Your task to perform on an android device: turn vacation reply on in the gmail app Image 0: 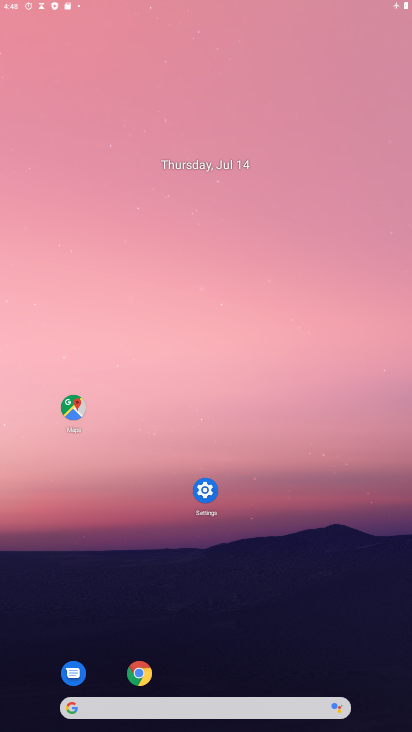
Step 0: drag from (242, 657) to (198, 142)
Your task to perform on an android device: turn vacation reply on in the gmail app Image 1: 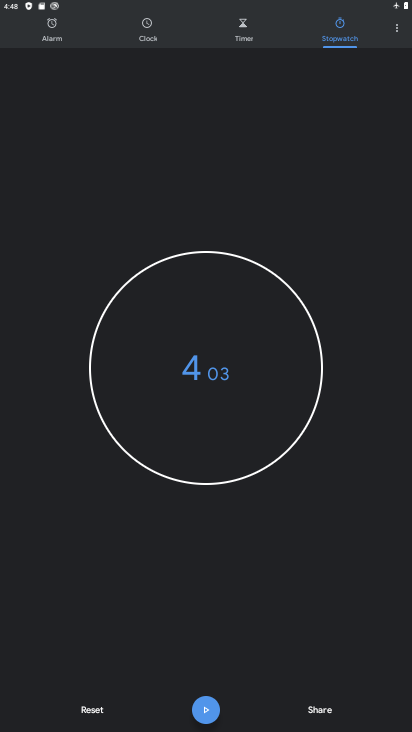
Step 1: press back button
Your task to perform on an android device: turn vacation reply on in the gmail app Image 2: 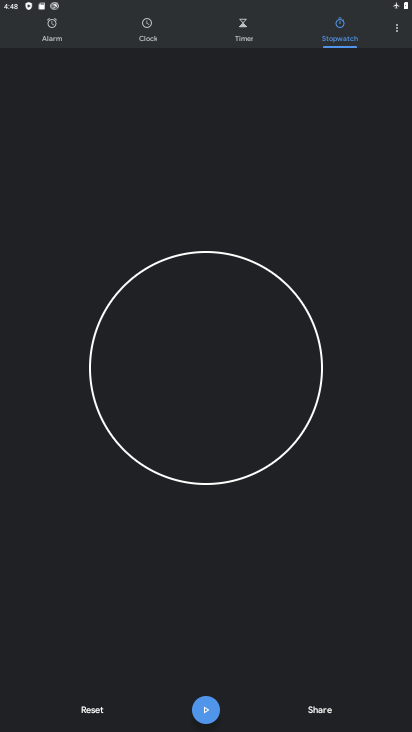
Step 2: press back button
Your task to perform on an android device: turn vacation reply on in the gmail app Image 3: 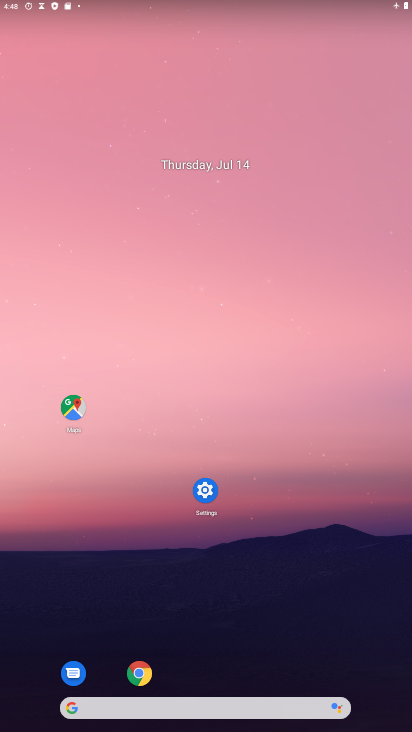
Step 3: drag from (236, 647) to (177, 147)
Your task to perform on an android device: turn vacation reply on in the gmail app Image 4: 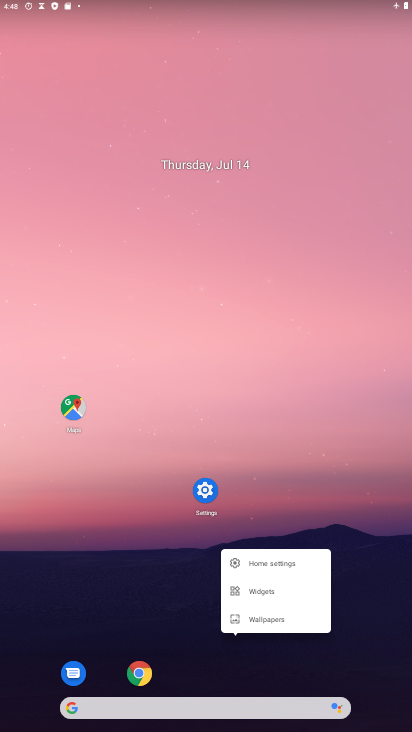
Step 4: drag from (162, 666) to (32, 15)
Your task to perform on an android device: turn vacation reply on in the gmail app Image 5: 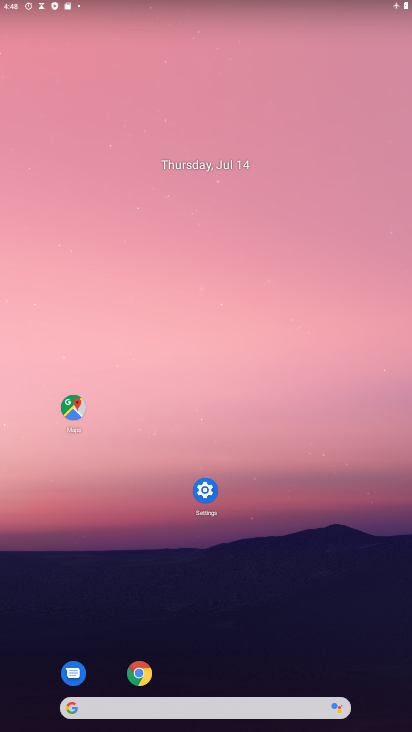
Step 5: drag from (190, 525) to (161, 79)
Your task to perform on an android device: turn vacation reply on in the gmail app Image 6: 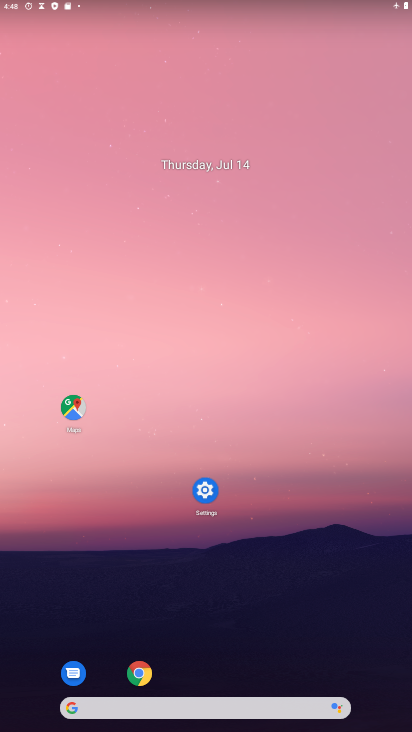
Step 6: drag from (252, 537) to (157, 126)
Your task to perform on an android device: turn vacation reply on in the gmail app Image 7: 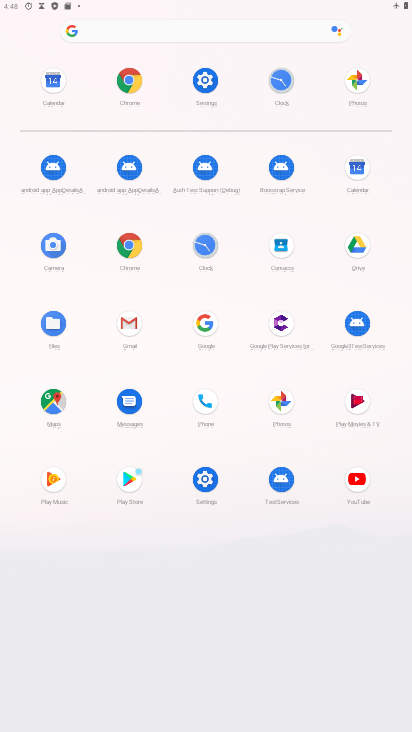
Step 7: drag from (252, 538) to (186, 232)
Your task to perform on an android device: turn vacation reply on in the gmail app Image 8: 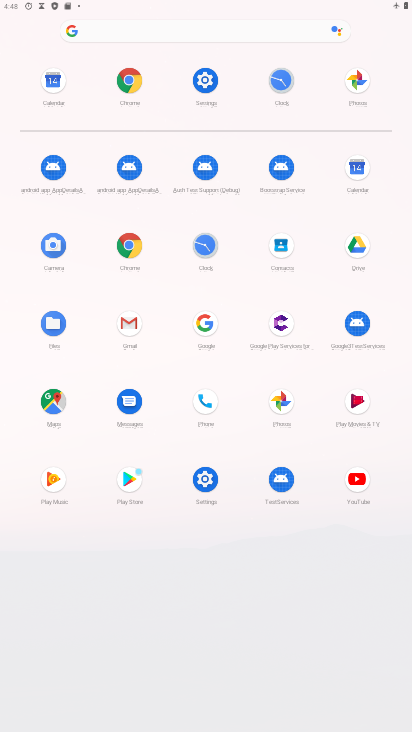
Step 8: click (126, 313)
Your task to perform on an android device: turn vacation reply on in the gmail app Image 9: 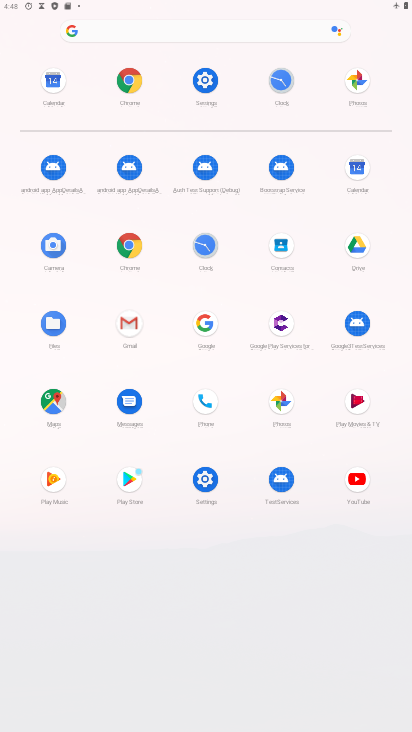
Step 9: click (131, 324)
Your task to perform on an android device: turn vacation reply on in the gmail app Image 10: 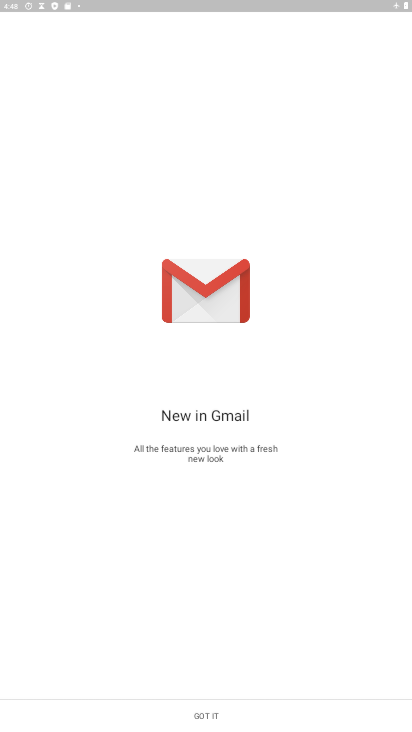
Step 10: click (134, 327)
Your task to perform on an android device: turn vacation reply on in the gmail app Image 11: 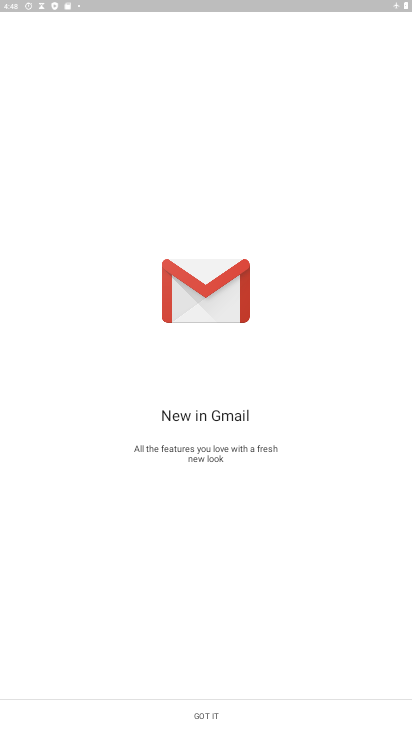
Step 11: click (200, 727)
Your task to perform on an android device: turn vacation reply on in the gmail app Image 12: 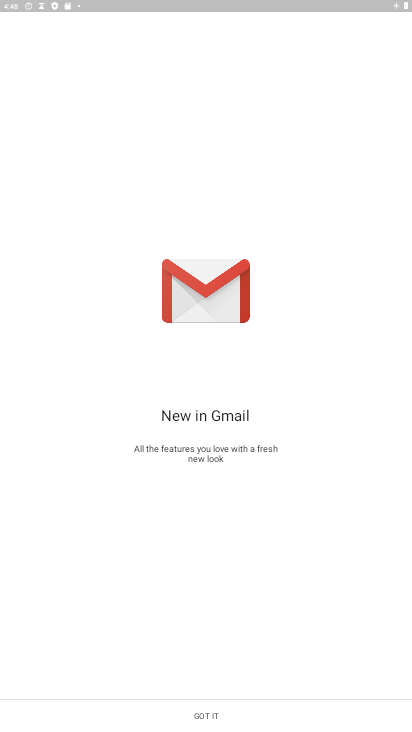
Step 12: click (209, 713)
Your task to perform on an android device: turn vacation reply on in the gmail app Image 13: 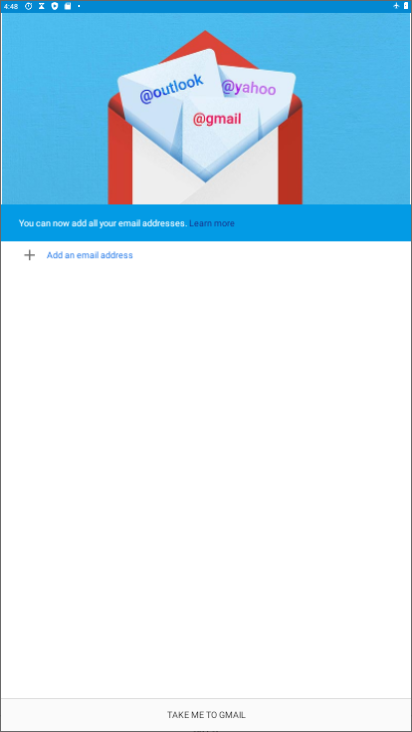
Step 13: click (209, 713)
Your task to perform on an android device: turn vacation reply on in the gmail app Image 14: 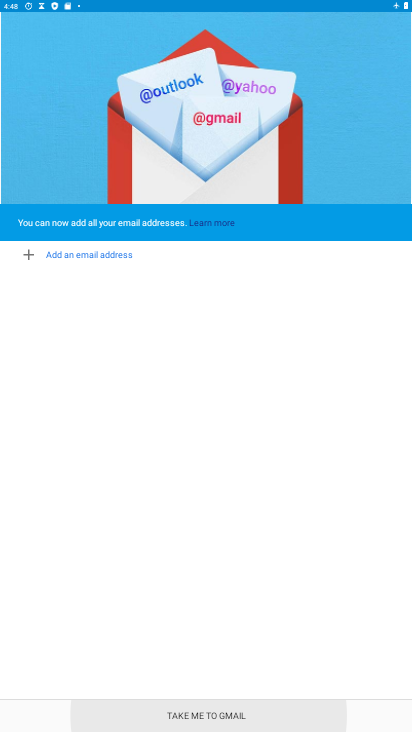
Step 14: click (211, 714)
Your task to perform on an android device: turn vacation reply on in the gmail app Image 15: 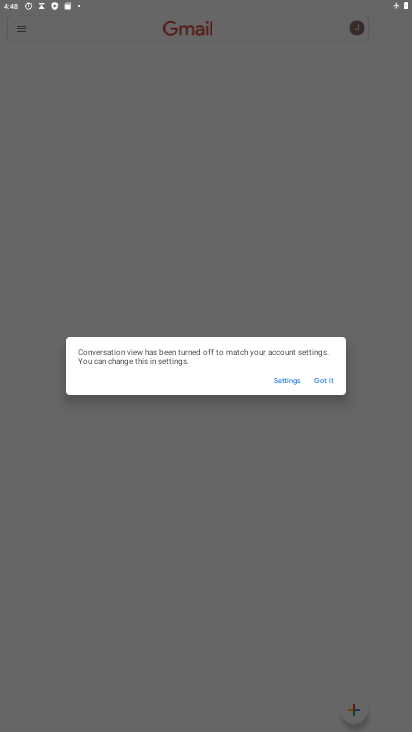
Step 15: click (326, 379)
Your task to perform on an android device: turn vacation reply on in the gmail app Image 16: 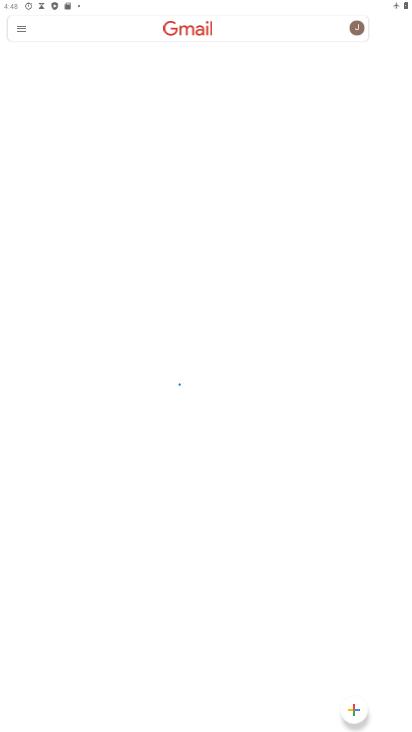
Step 16: drag from (24, 26) to (70, 253)
Your task to perform on an android device: turn vacation reply on in the gmail app Image 17: 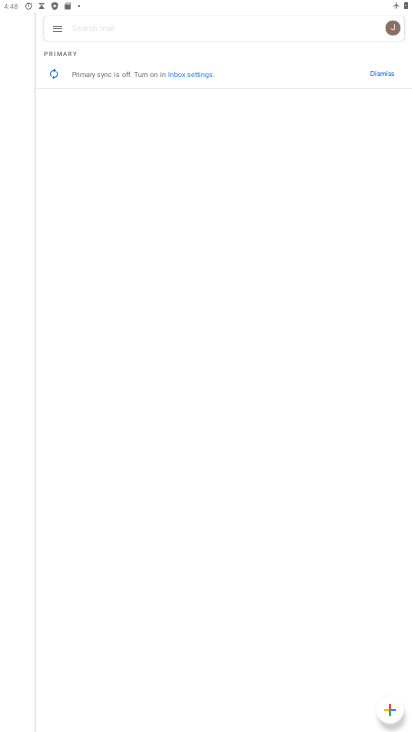
Step 17: click (60, 28)
Your task to perform on an android device: turn vacation reply on in the gmail app Image 18: 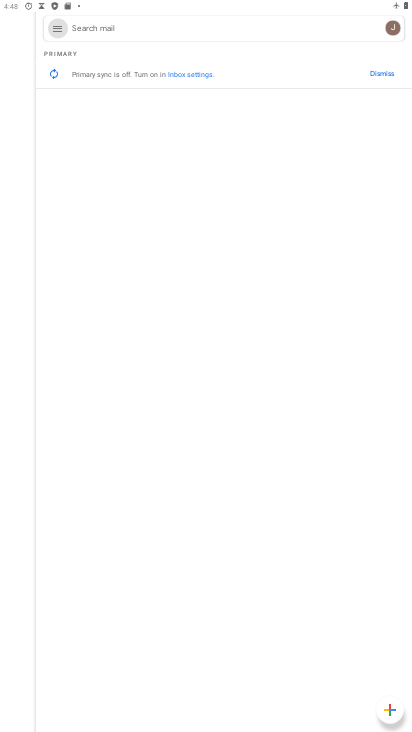
Step 18: click (60, 28)
Your task to perform on an android device: turn vacation reply on in the gmail app Image 19: 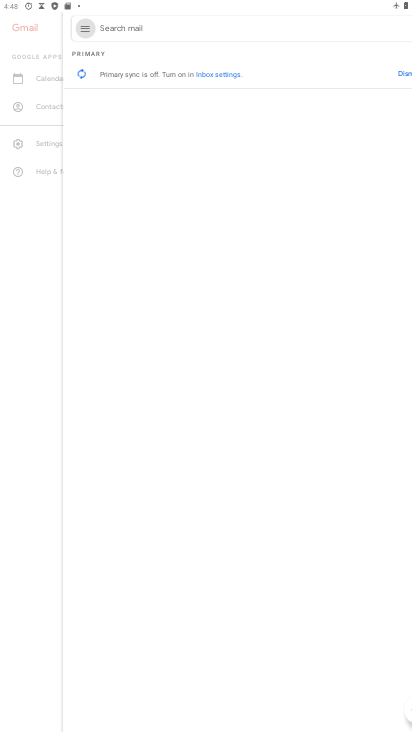
Step 19: click (62, 37)
Your task to perform on an android device: turn vacation reply on in the gmail app Image 20: 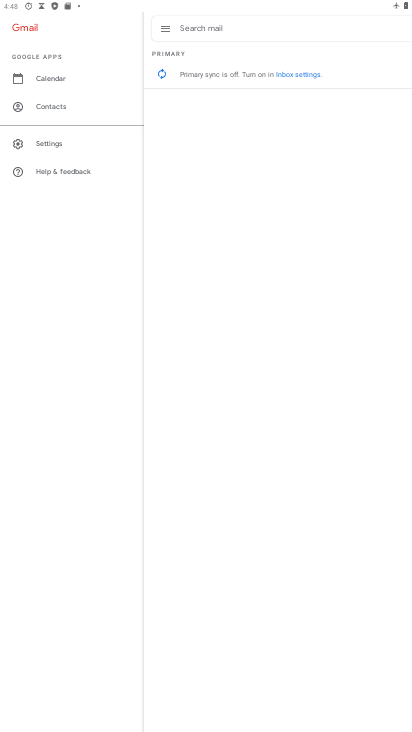
Step 20: click (161, 26)
Your task to perform on an android device: turn vacation reply on in the gmail app Image 21: 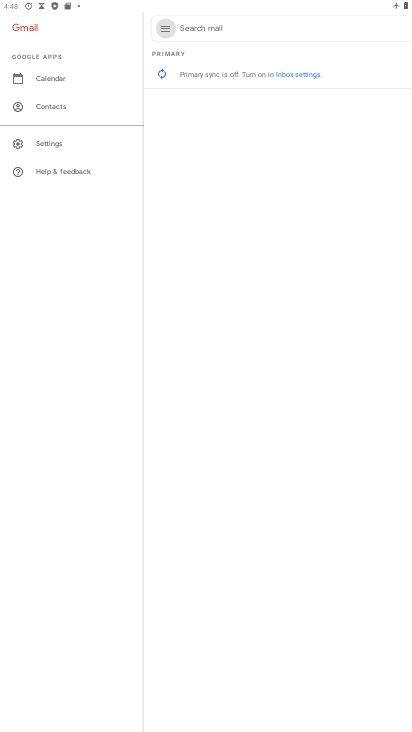
Step 21: click (167, 29)
Your task to perform on an android device: turn vacation reply on in the gmail app Image 22: 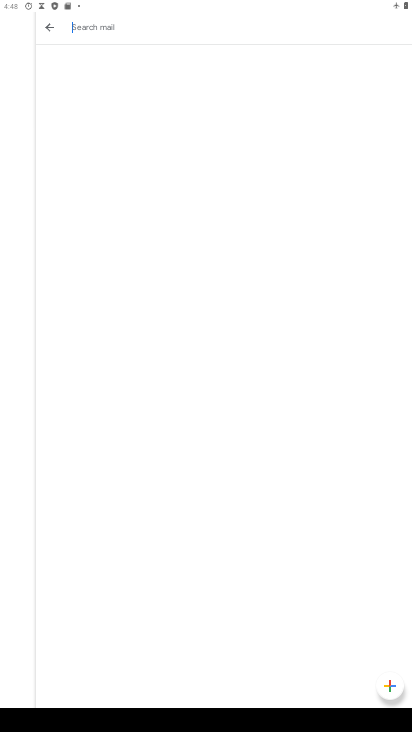
Step 22: click (57, 22)
Your task to perform on an android device: turn vacation reply on in the gmail app Image 23: 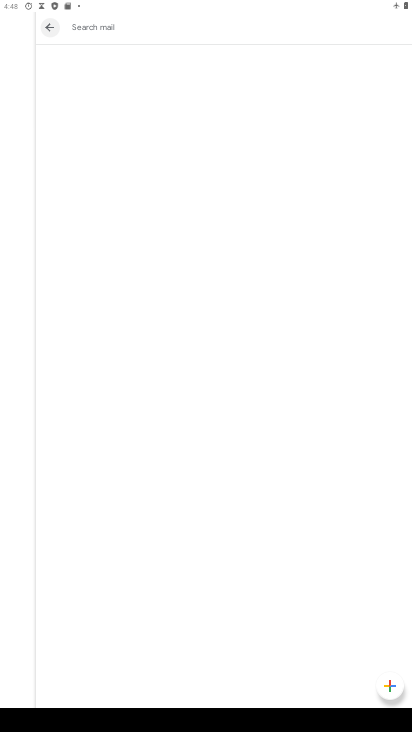
Step 23: click (52, 24)
Your task to perform on an android device: turn vacation reply on in the gmail app Image 24: 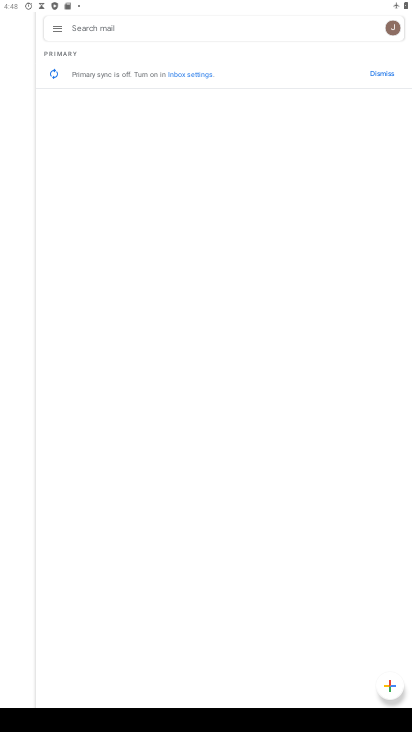
Step 24: click (49, 24)
Your task to perform on an android device: turn vacation reply on in the gmail app Image 25: 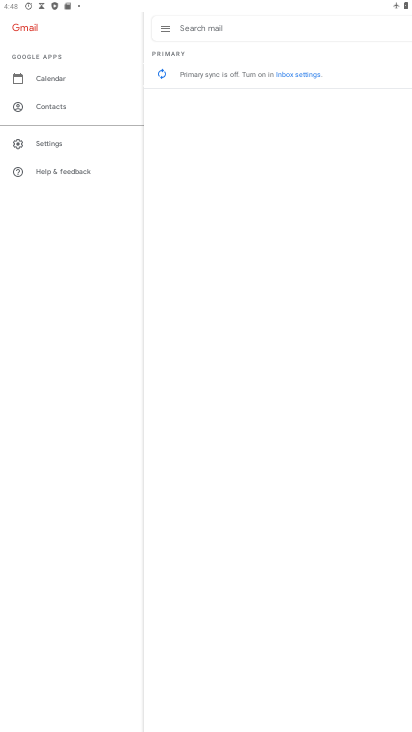
Step 25: click (49, 143)
Your task to perform on an android device: turn vacation reply on in the gmail app Image 26: 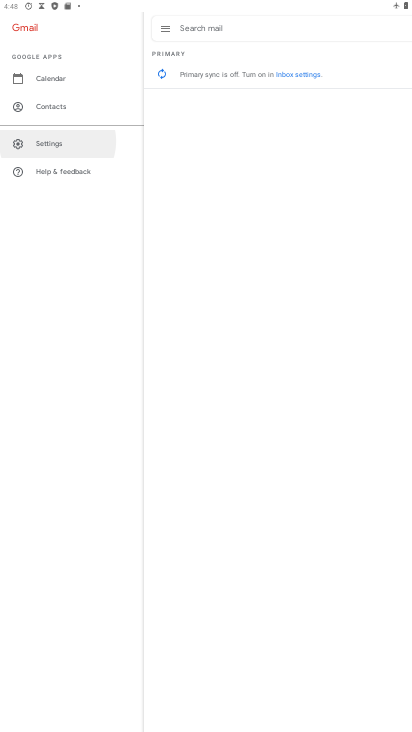
Step 26: click (50, 144)
Your task to perform on an android device: turn vacation reply on in the gmail app Image 27: 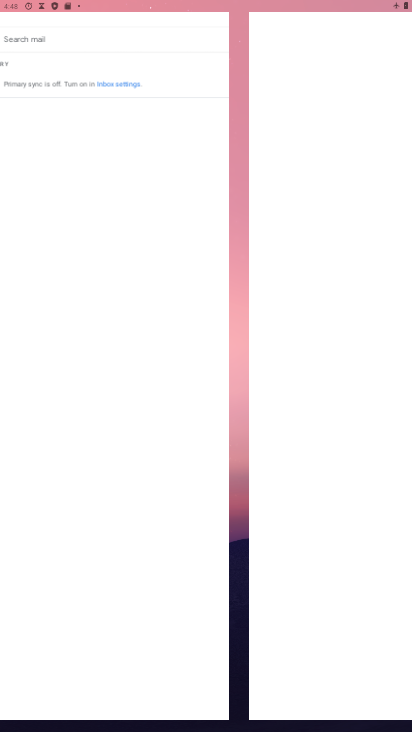
Step 27: click (57, 146)
Your task to perform on an android device: turn vacation reply on in the gmail app Image 28: 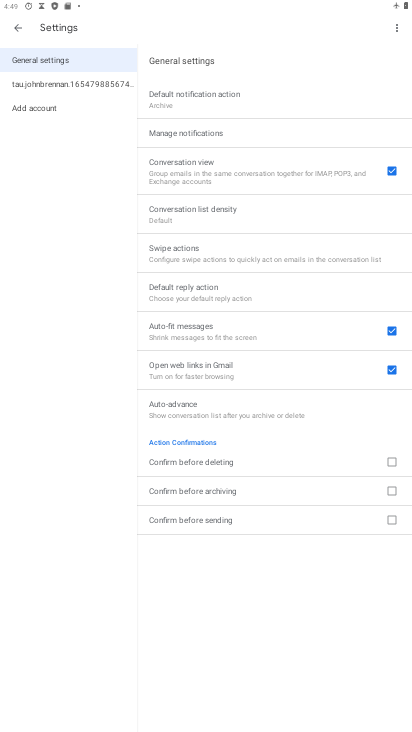
Step 28: click (48, 83)
Your task to perform on an android device: turn vacation reply on in the gmail app Image 29: 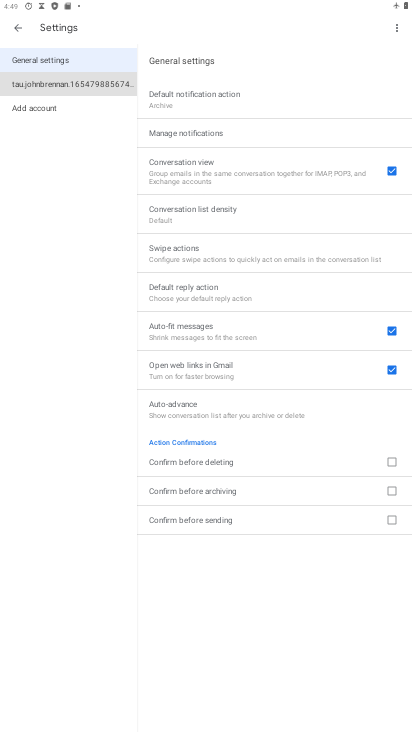
Step 29: click (50, 85)
Your task to perform on an android device: turn vacation reply on in the gmail app Image 30: 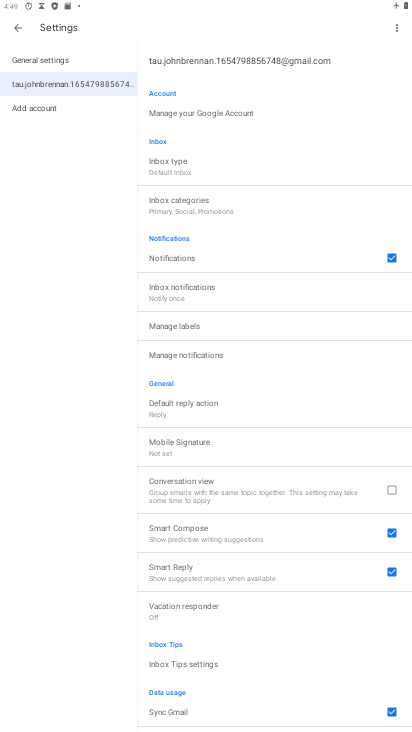
Step 30: click (181, 610)
Your task to perform on an android device: turn vacation reply on in the gmail app Image 31: 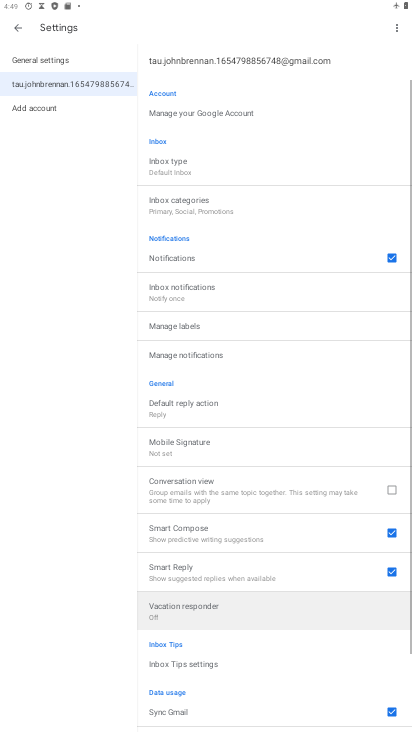
Step 31: click (181, 610)
Your task to perform on an android device: turn vacation reply on in the gmail app Image 32: 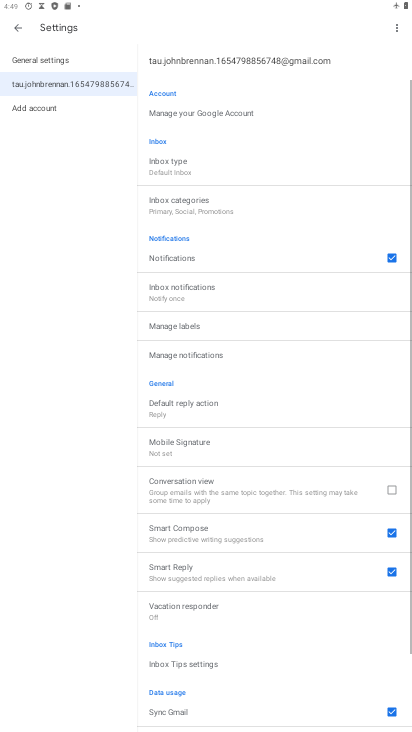
Step 32: click (181, 610)
Your task to perform on an android device: turn vacation reply on in the gmail app Image 33: 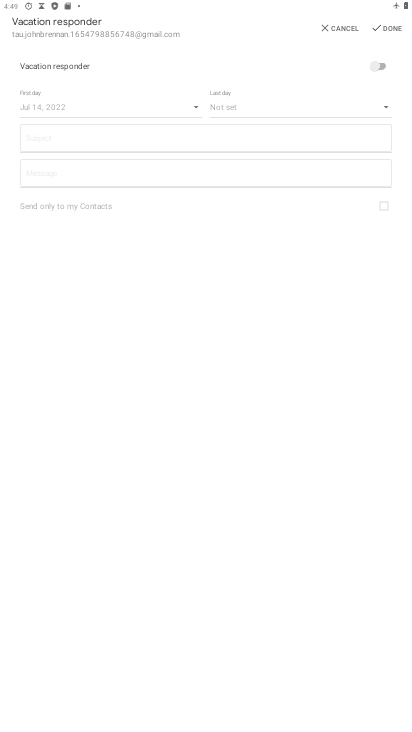
Step 33: task complete